Your task to perform on an android device: Is it going to rain tomorrow? Image 0: 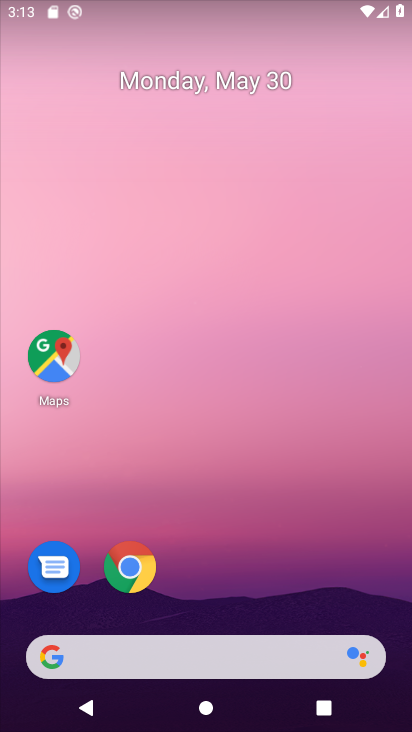
Step 0: drag from (299, 656) to (360, 20)
Your task to perform on an android device: Is it going to rain tomorrow? Image 1: 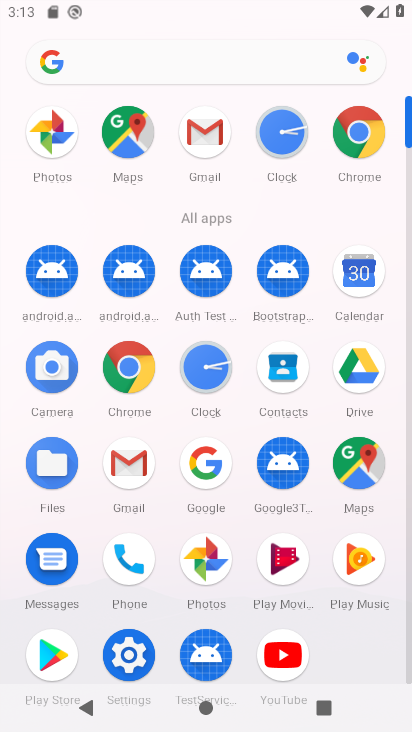
Step 1: press home button
Your task to perform on an android device: Is it going to rain tomorrow? Image 2: 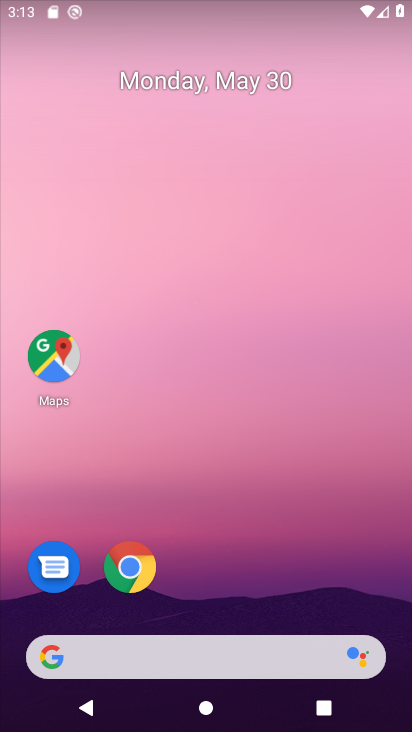
Step 2: drag from (119, 339) to (398, 211)
Your task to perform on an android device: Is it going to rain tomorrow? Image 3: 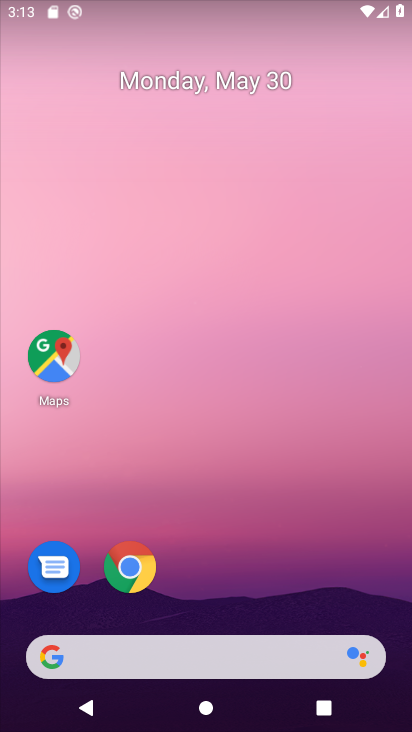
Step 3: drag from (1, 161) to (406, 114)
Your task to perform on an android device: Is it going to rain tomorrow? Image 4: 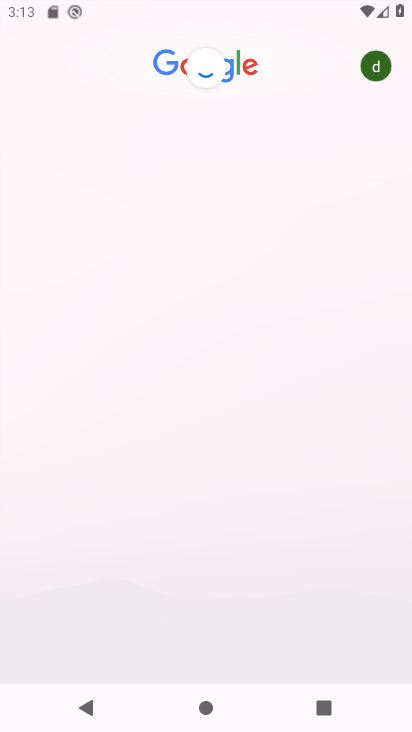
Step 4: drag from (286, 195) to (239, 491)
Your task to perform on an android device: Is it going to rain tomorrow? Image 5: 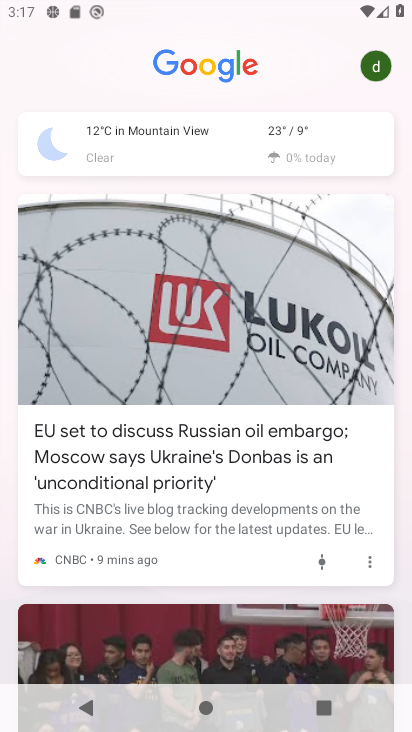
Step 5: click (167, 156)
Your task to perform on an android device: Is it going to rain tomorrow? Image 6: 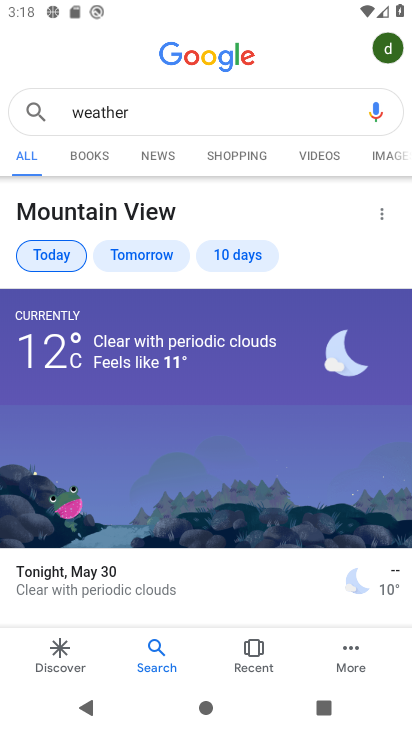
Step 6: task complete